Your task to perform on an android device: Open Maps and search for coffee Image 0: 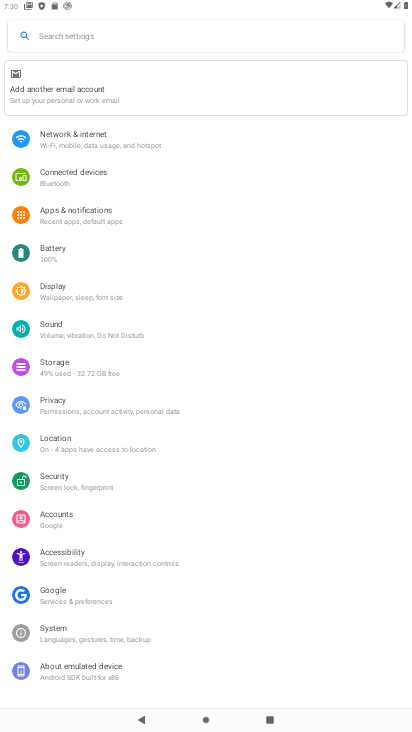
Step 0: press home button
Your task to perform on an android device: Open Maps and search for coffee Image 1: 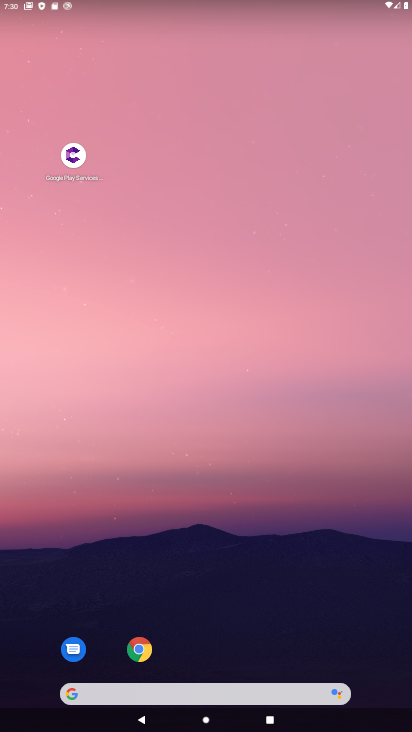
Step 1: drag from (189, 690) to (410, 21)
Your task to perform on an android device: Open Maps and search for coffee Image 2: 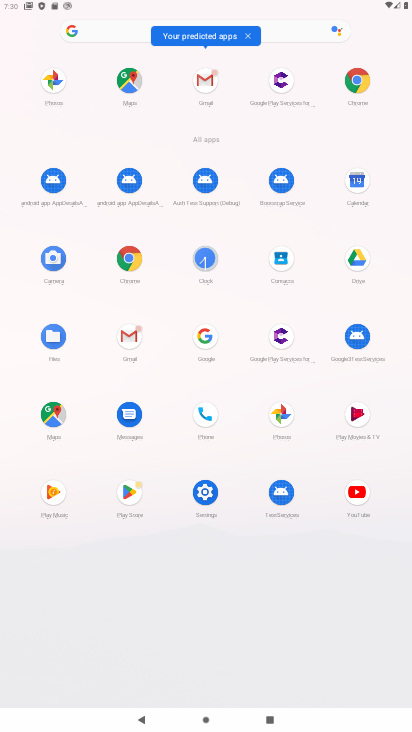
Step 2: click (129, 82)
Your task to perform on an android device: Open Maps and search for coffee Image 3: 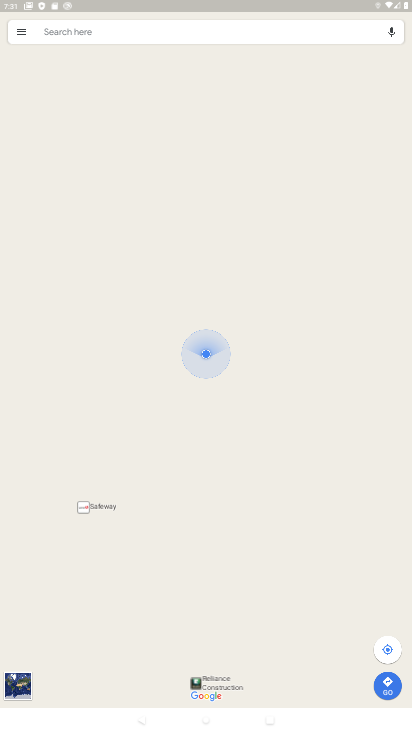
Step 3: click (170, 29)
Your task to perform on an android device: Open Maps and search for coffee Image 4: 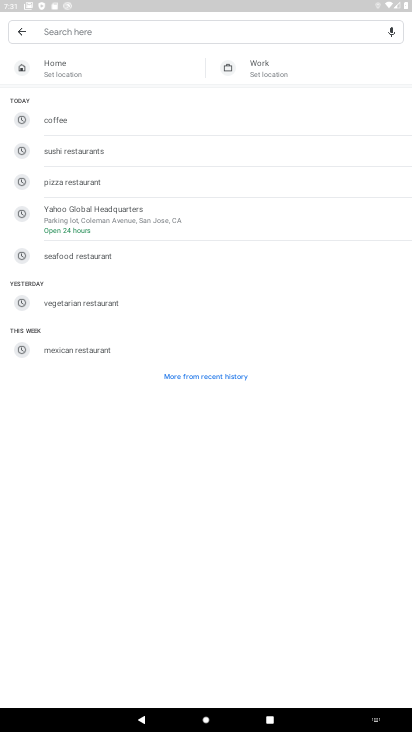
Step 4: type "coffee"
Your task to perform on an android device: Open Maps and search for coffee Image 5: 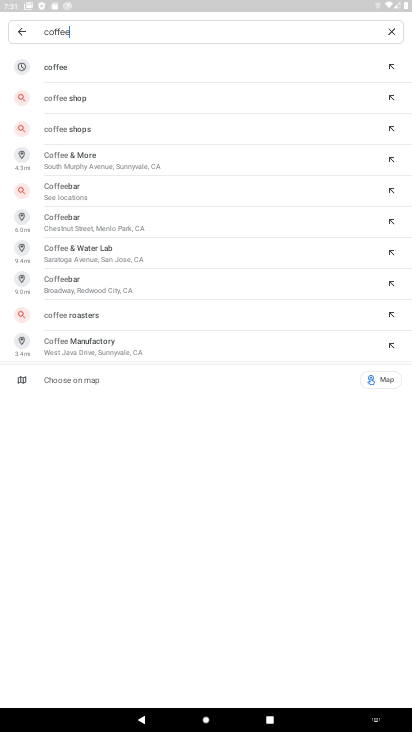
Step 5: click (61, 67)
Your task to perform on an android device: Open Maps and search for coffee Image 6: 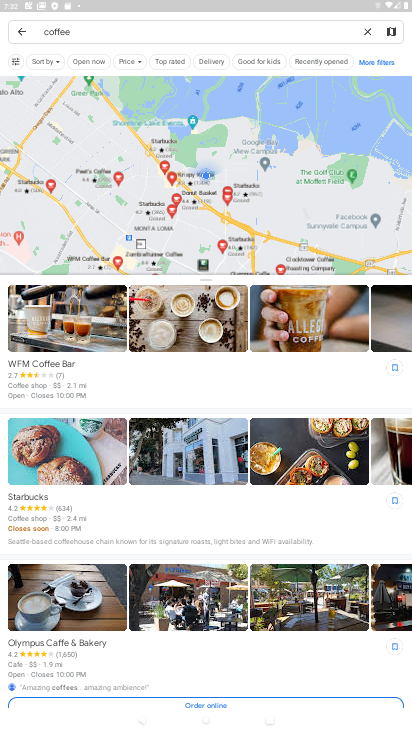
Step 6: task complete